Your task to perform on an android device: install app "PUBG MOBILE" Image 0: 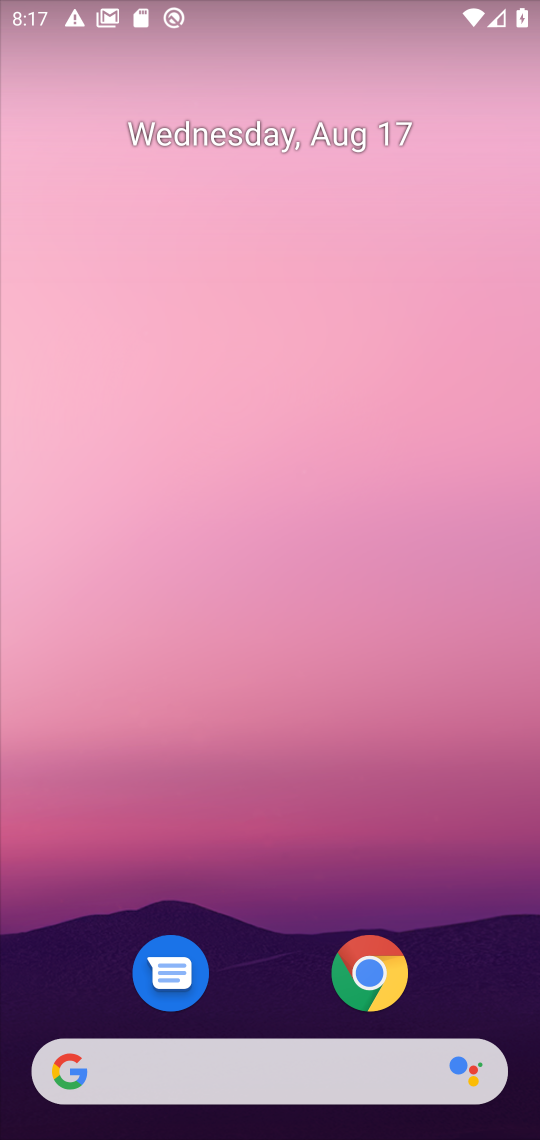
Step 0: drag from (295, 1072) to (374, 285)
Your task to perform on an android device: install app "PUBG MOBILE" Image 1: 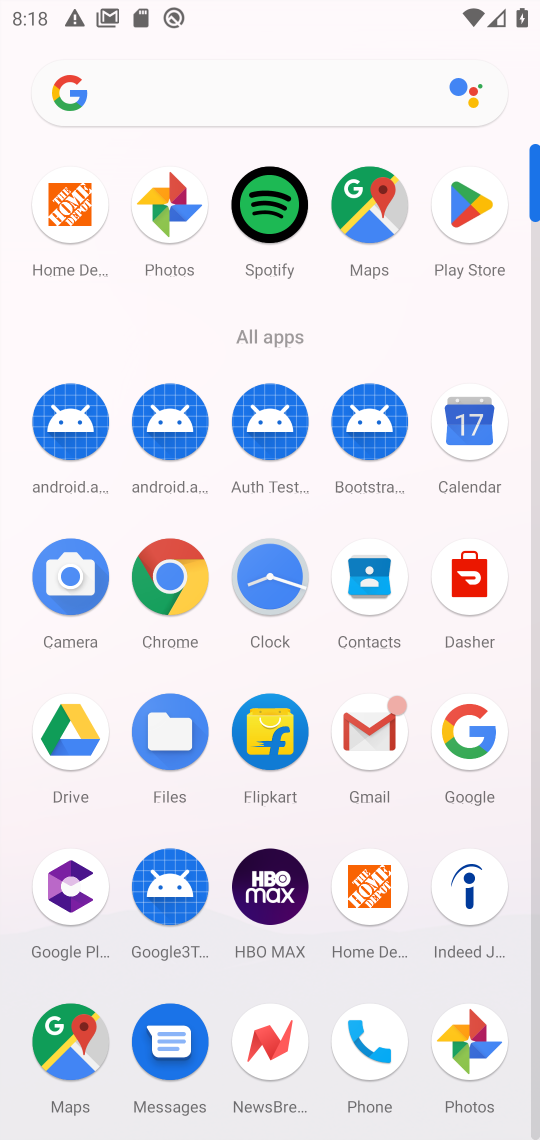
Step 1: click (482, 227)
Your task to perform on an android device: install app "PUBG MOBILE" Image 2: 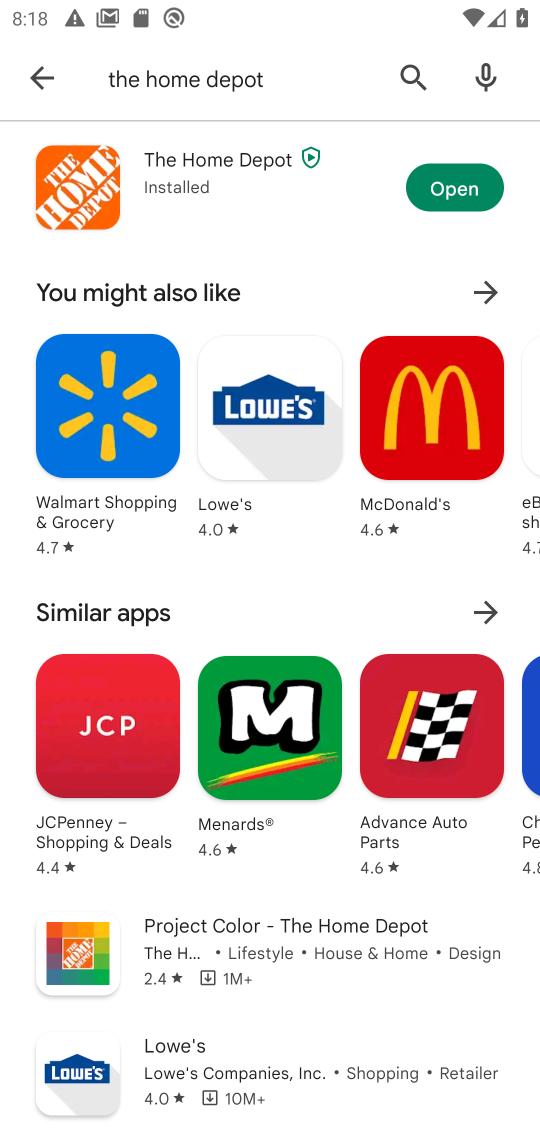
Step 2: click (43, 82)
Your task to perform on an android device: install app "PUBG MOBILE" Image 3: 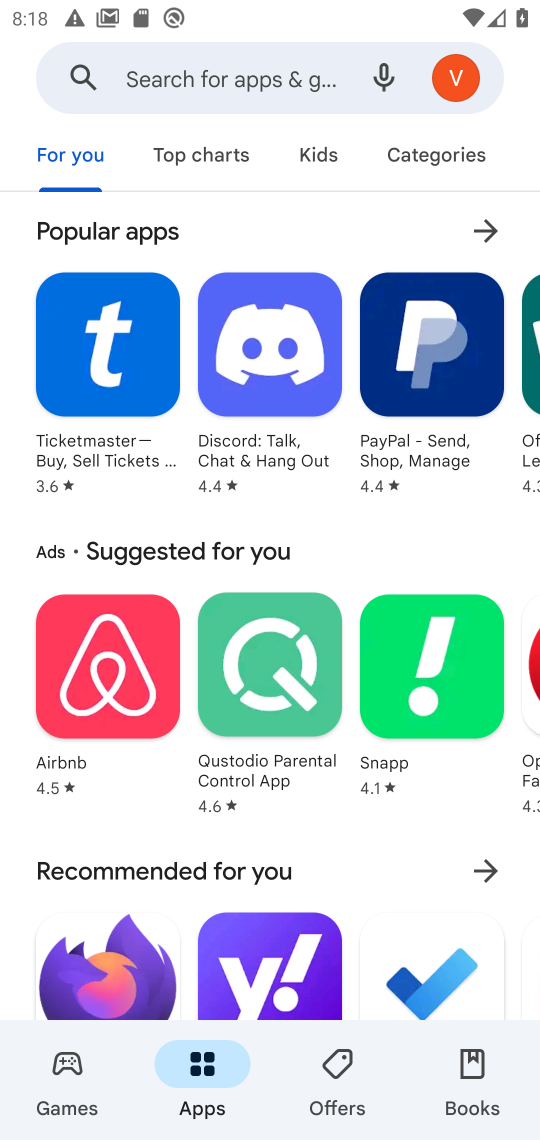
Step 3: click (221, 84)
Your task to perform on an android device: install app "PUBG MOBILE" Image 4: 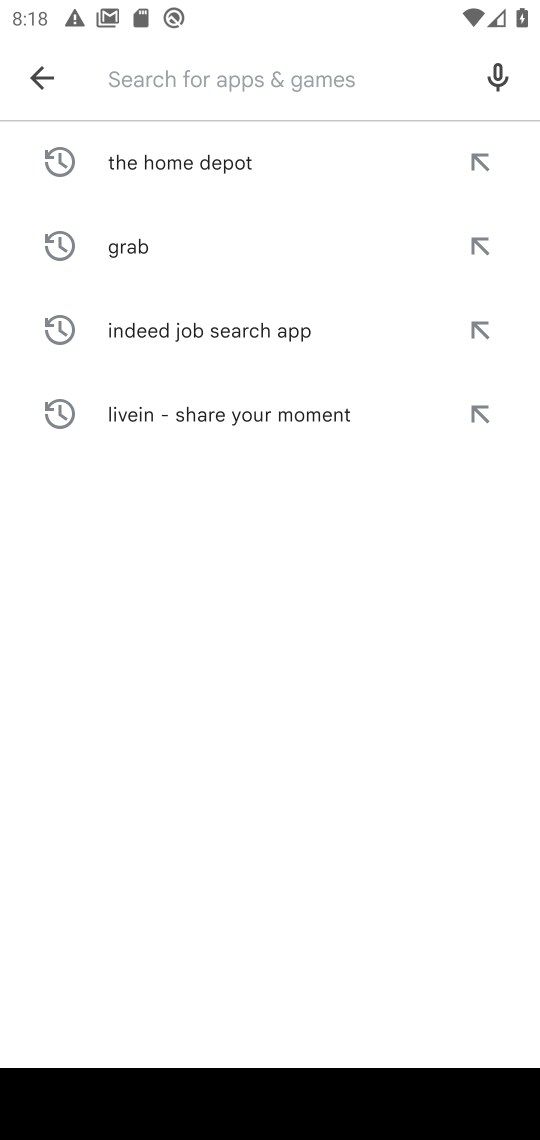
Step 4: type "PUBG MOBILE"
Your task to perform on an android device: install app "PUBG MOBILE" Image 5: 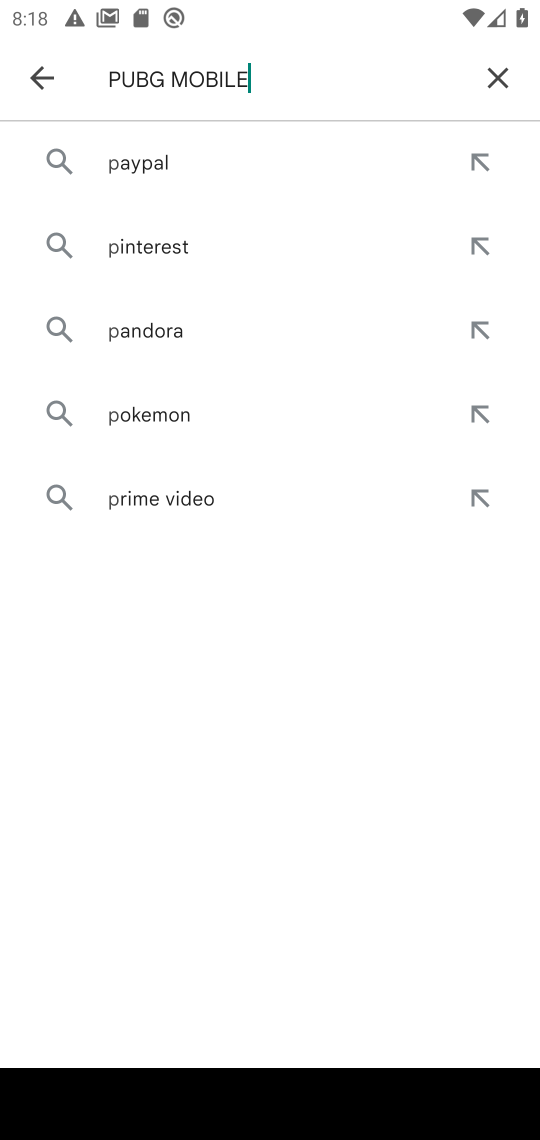
Step 5: type ""
Your task to perform on an android device: install app "PUBG MOBILE" Image 6: 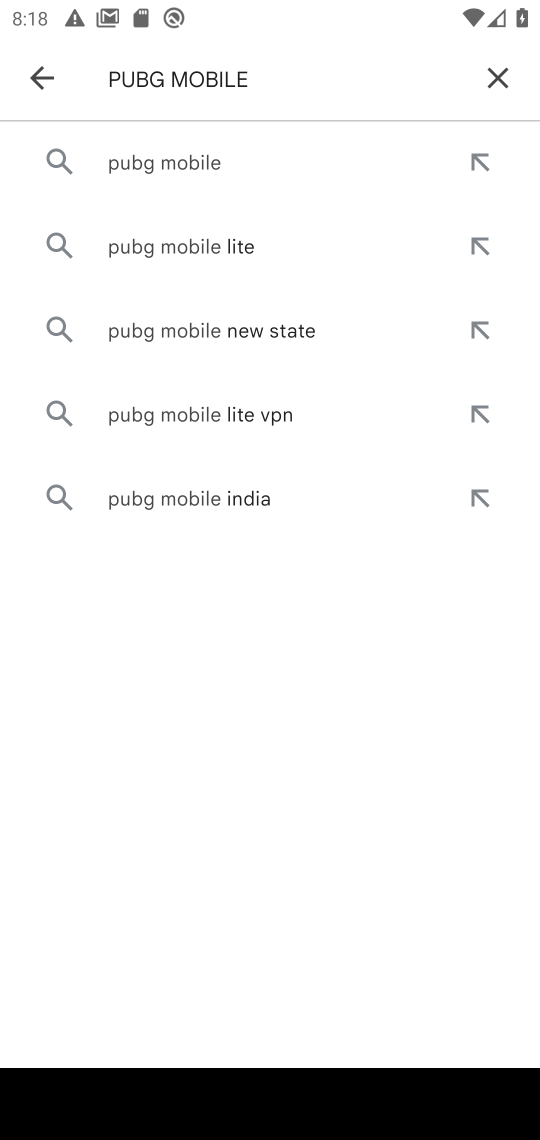
Step 6: click (206, 160)
Your task to perform on an android device: install app "PUBG MOBILE" Image 7: 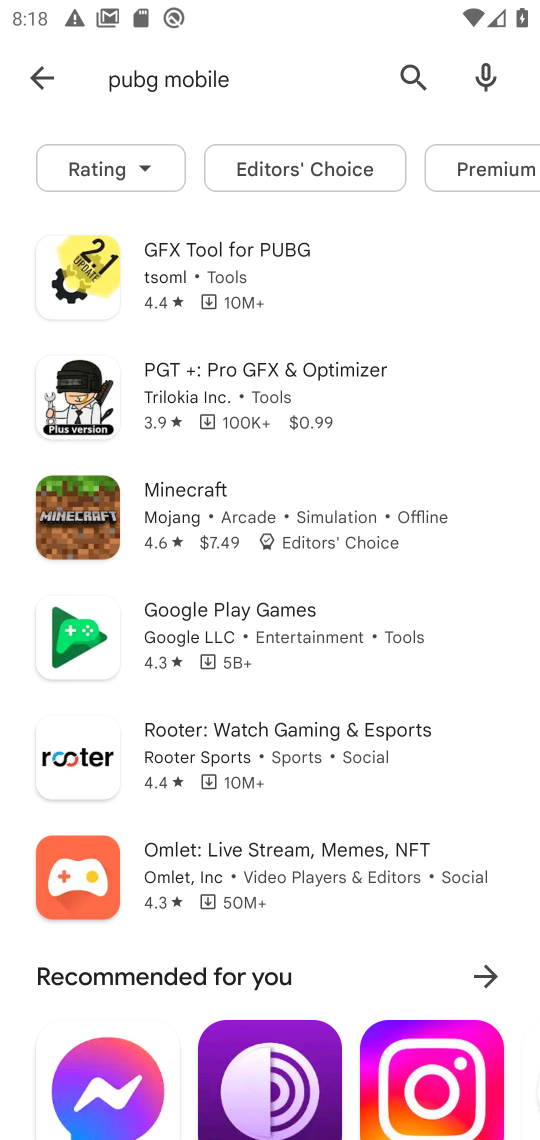
Step 7: click (213, 177)
Your task to perform on an android device: install app "PUBG MOBILE" Image 8: 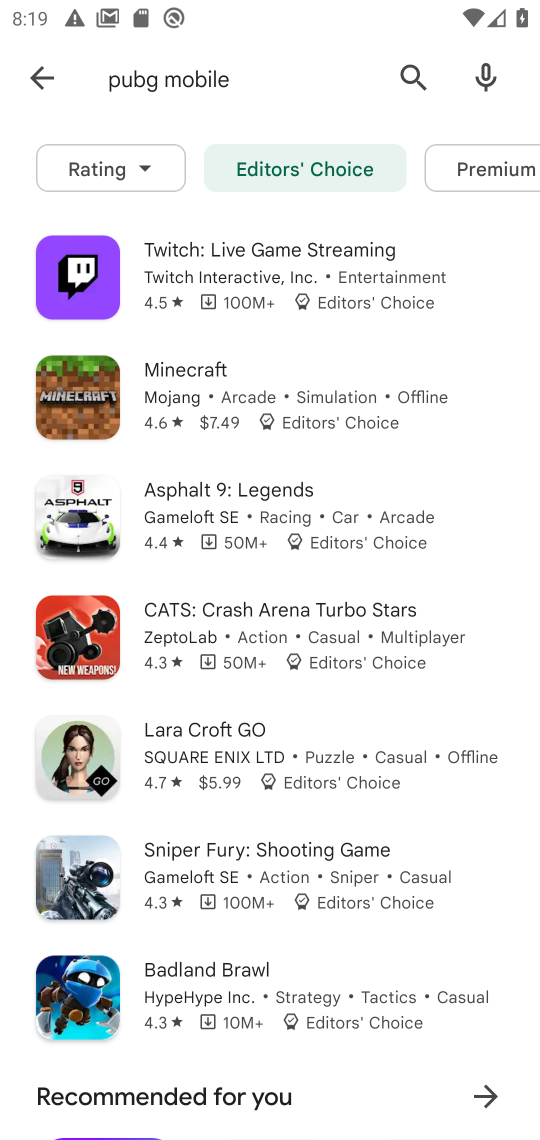
Step 8: task complete